Your task to perform on an android device: Search for vegetarian restaurants on Maps Image 0: 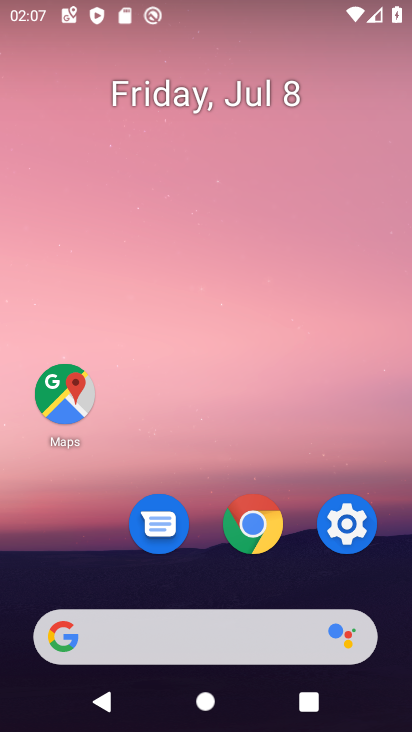
Step 0: press home button
Your task to perform on an android device: Search for vegetarian restaurants on Maps Image 1: 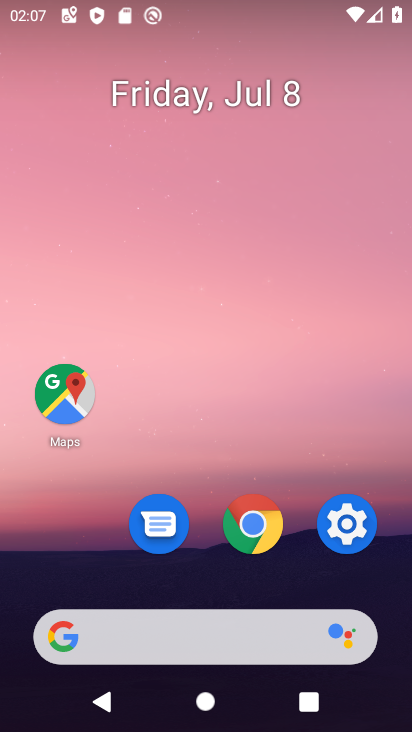
Step 1: click (71, 402)
Your task to perform on an android device: Search for vegetarian restaurants on Maps Image 2: 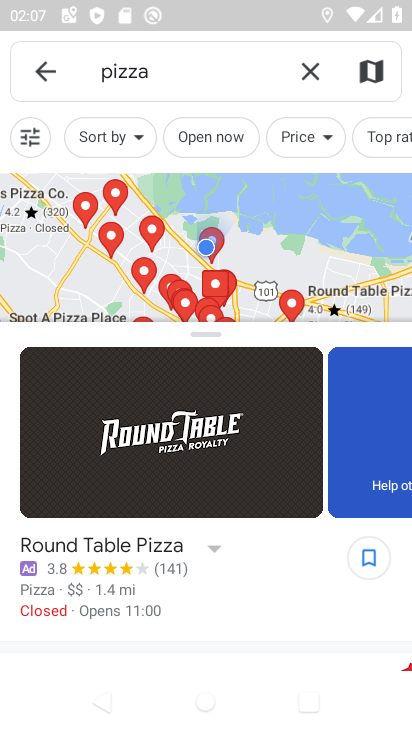
Step 2: click (306, 74)
Your task to perform on an android device: Search for vegetarian restaurants on Maps Image 3: 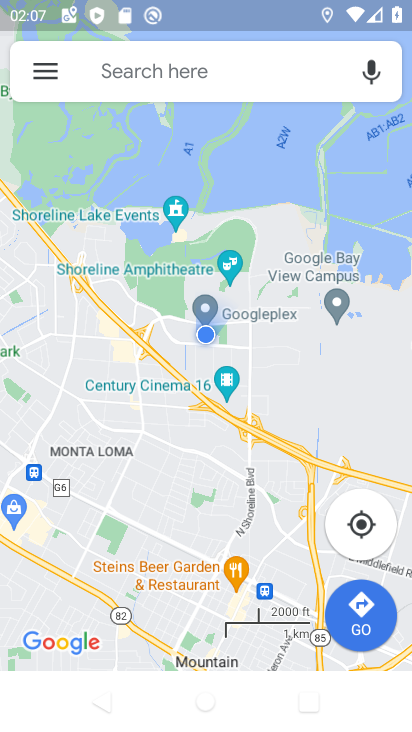
Step 3: click (181, 74)
Your task to perform on an android device: Search for vegetarian restaurants on Maps Image 4: 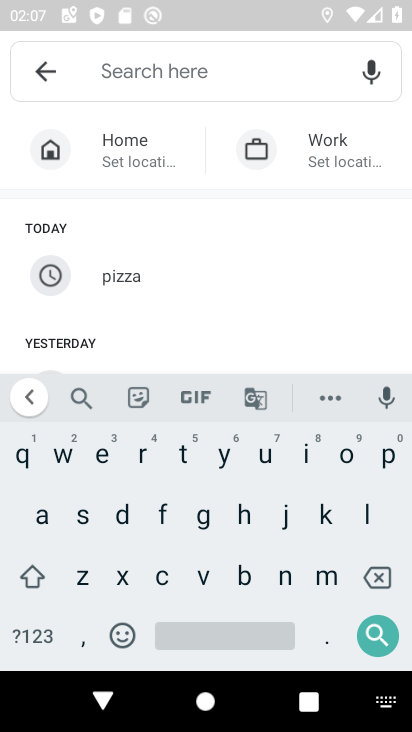
Step 4: click (199, 571)
Your task to perform on an android device: Search for vegetarian restaurants on Maps Image 5: 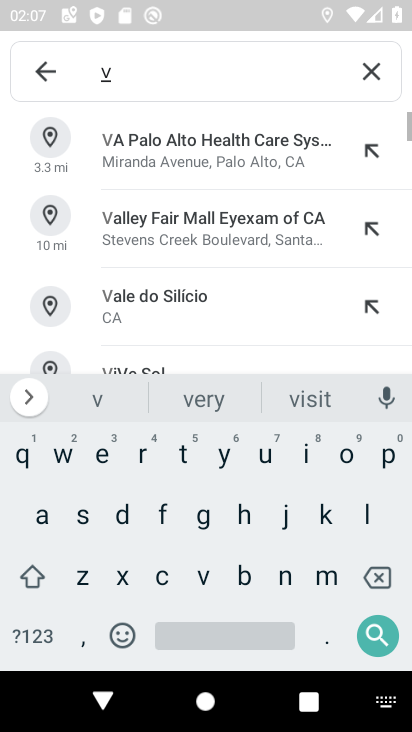
Step 5: click (95, 461)
Your task to perform on an android device: Search for vegetarian restaurants on Maps Image 6: 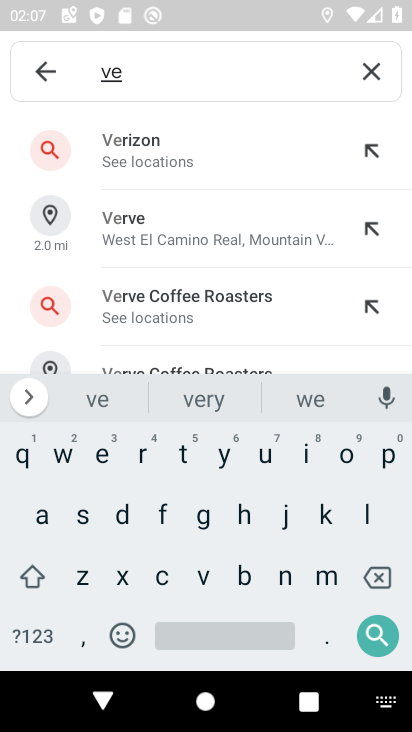
Step 6: click (201, 512)
Your task to perform on an android device: Search for vegetarian restaurants on Maps Image 7: 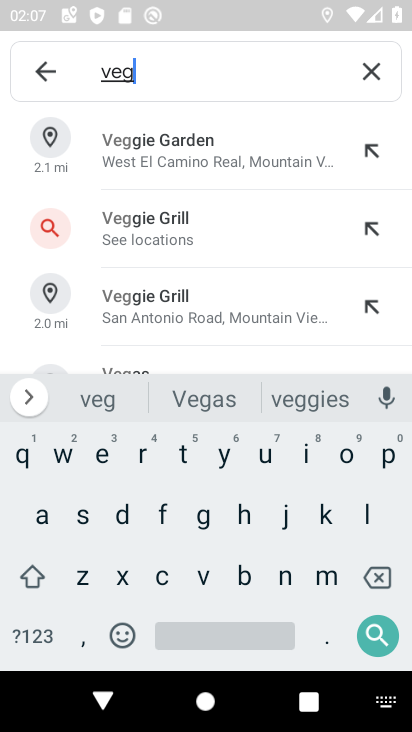
Step 7: click (106, 447)
Your task to perform on an android device: Search for vegetarian restaurants on Maps Image 8: 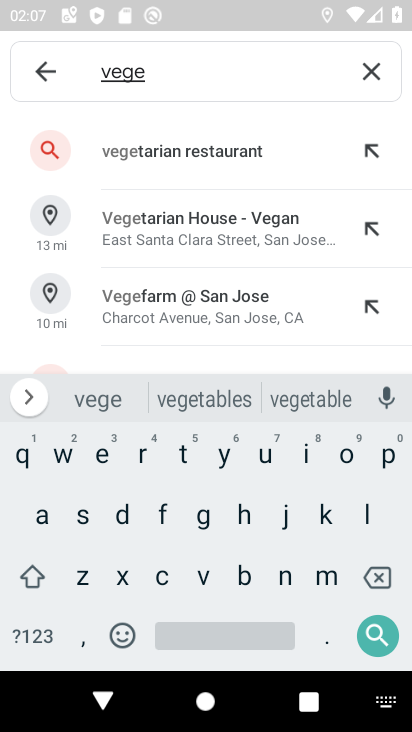
Step 8: click (192, 151)
Your task to perform on an android device: Search for vegetarian restaurants on Maps Image 9: 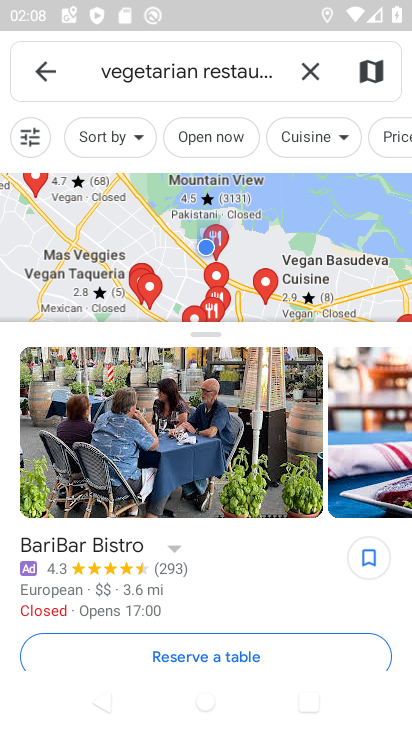
Step 9: click (168, 235)
Your task to perform on an android device: Search for vegetarian restaurants on Maps Image 10: 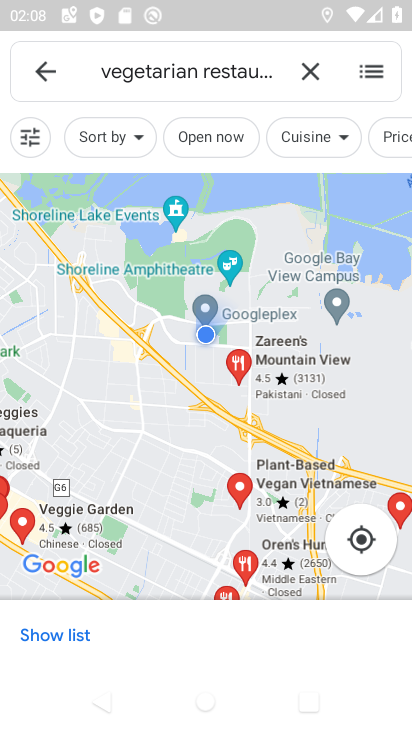
Step 10: task complete